Your task to perform on an android device: install app "WhatsApp Messenger" Image 0: 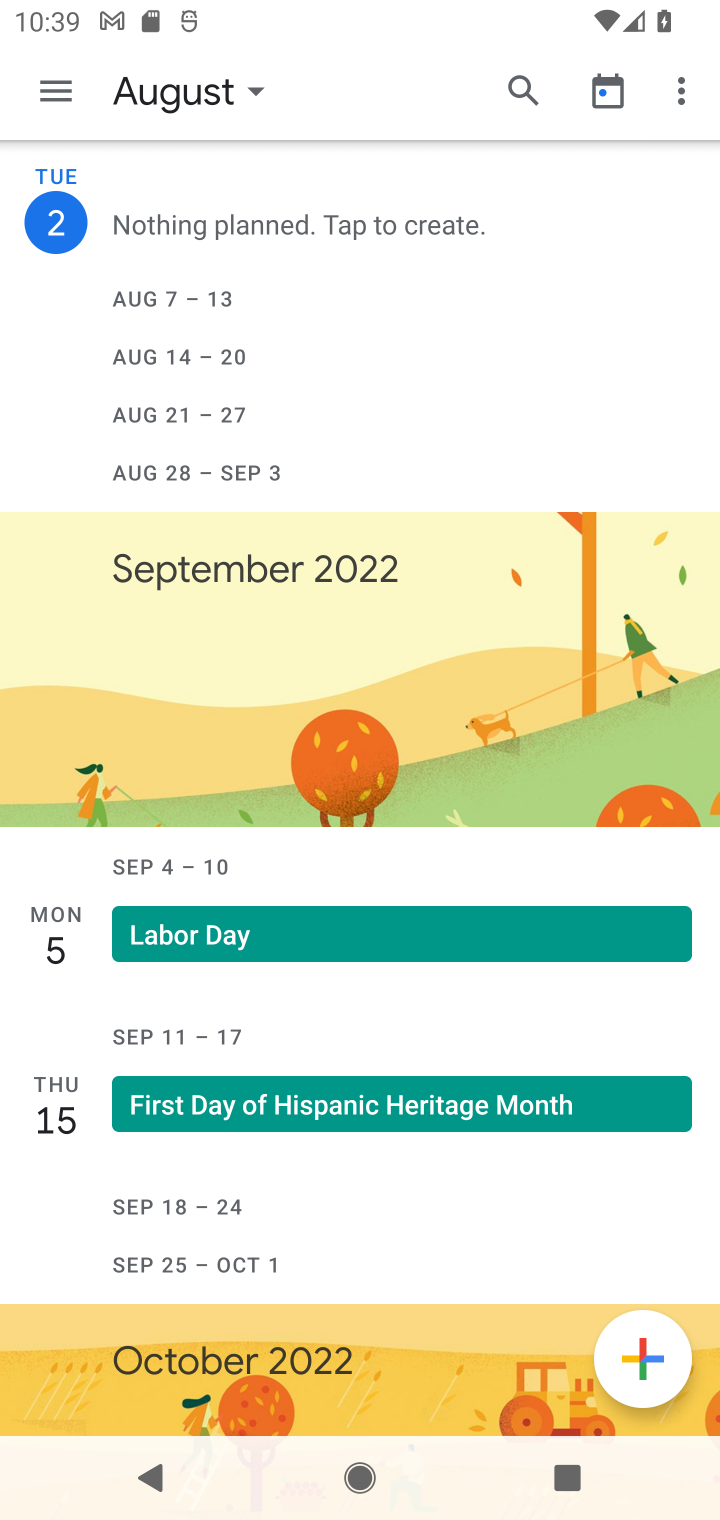
Step 0: press home button
Your task to perform on an android device: install app "WhatsApp Messenger" Image 1: 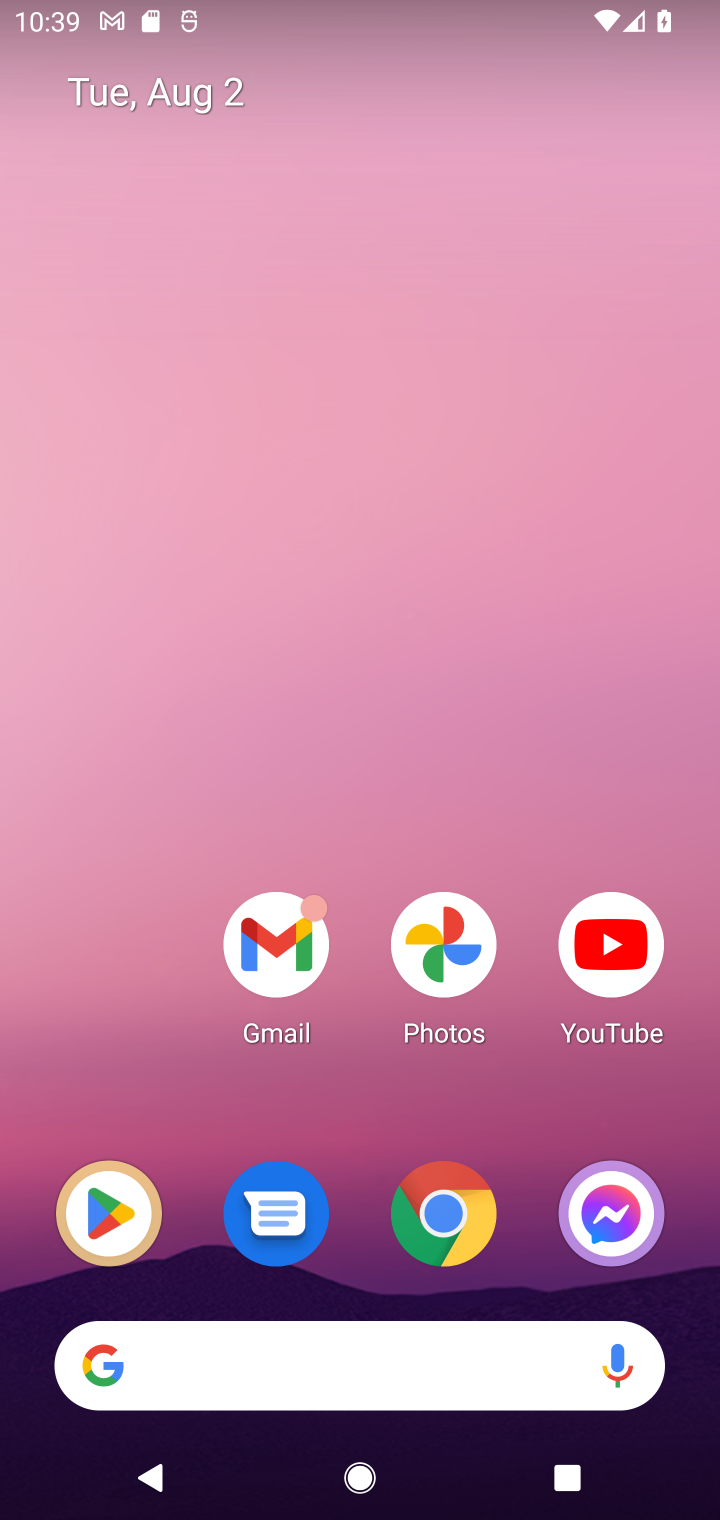
Step 1: click (116, 1200)
Your task to perform on an android device: install app "WhatsApp Messenger" Image 2: 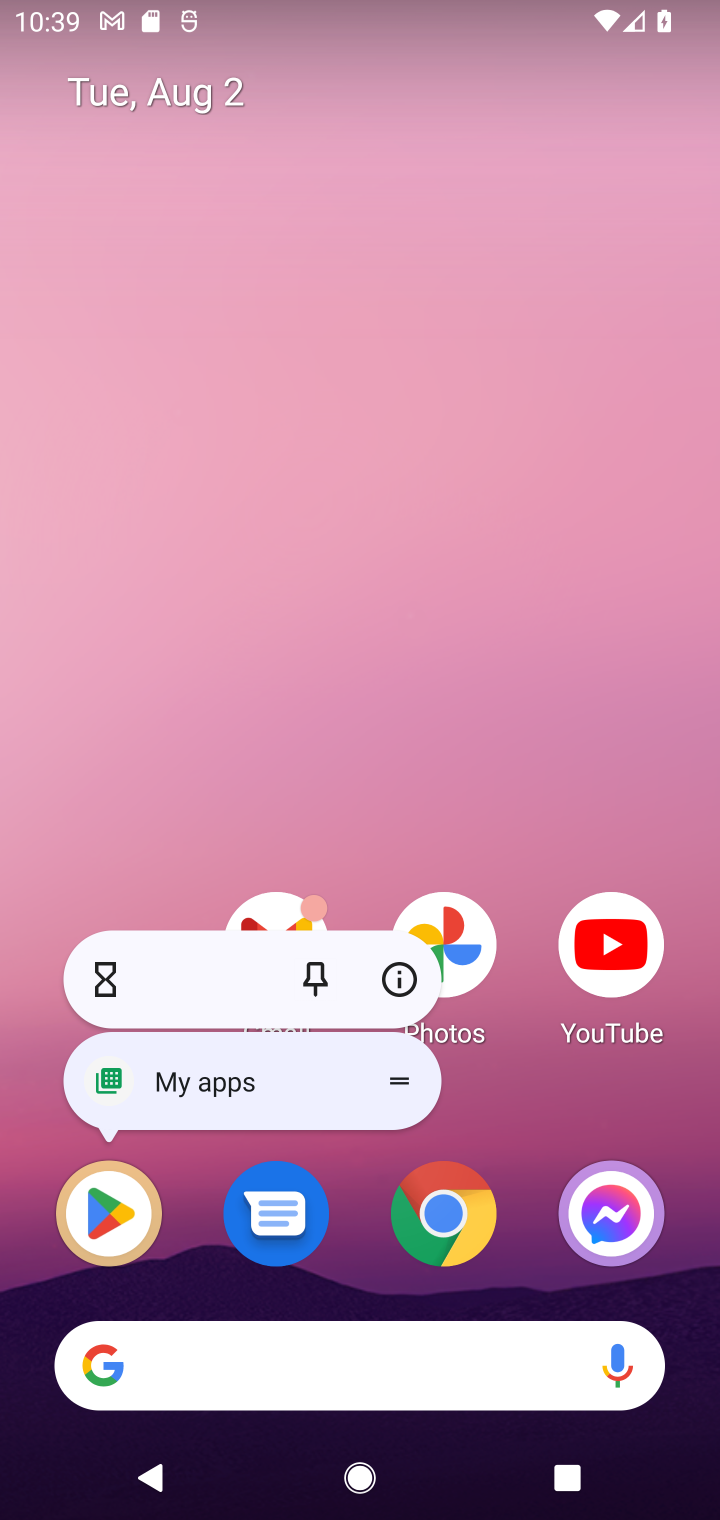
Step 2: click (116, 1224)
Your task to perform on an android device: install app "WhatsApp Messenger" Image 3: 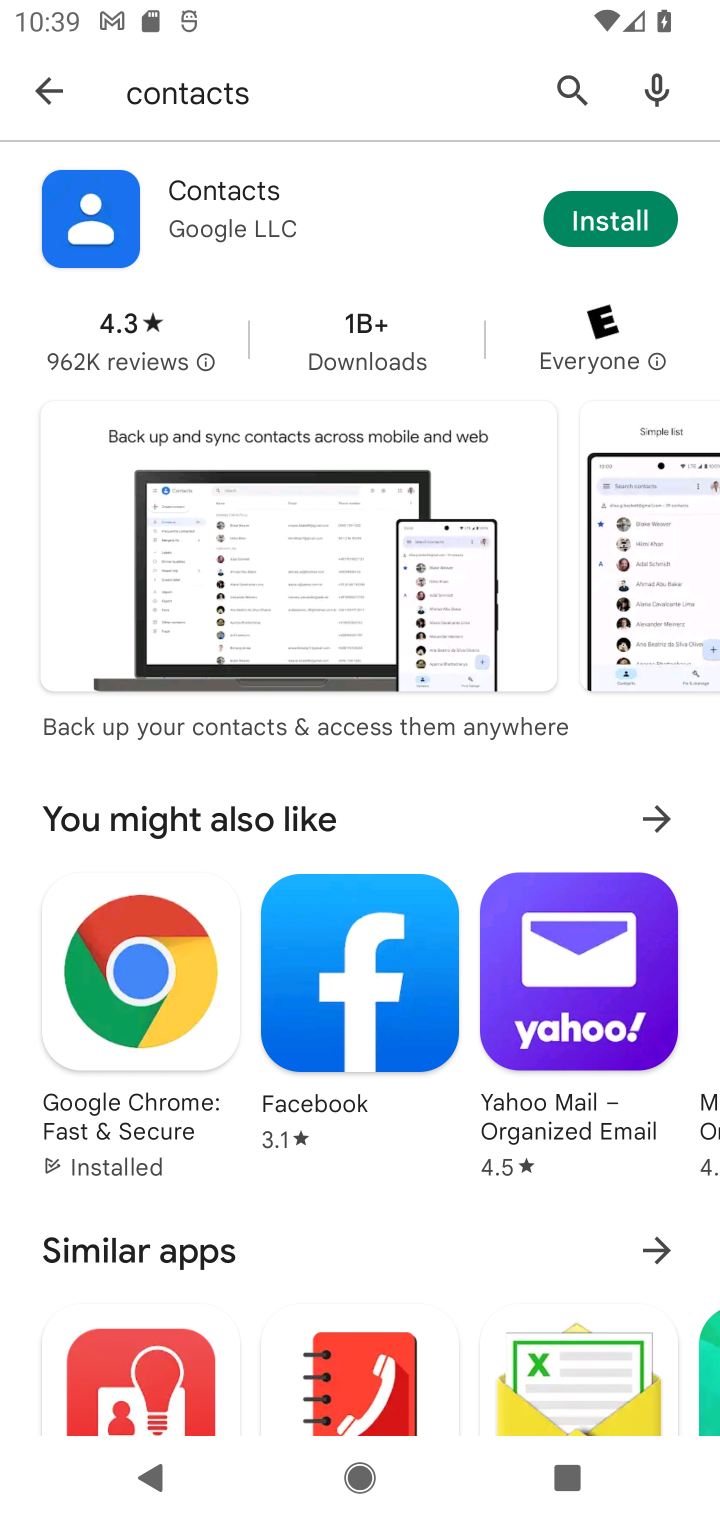
Step 3: click (52, 95)
Your task to perform on an android device: install app "WhatsApp Messenger" Image 4: 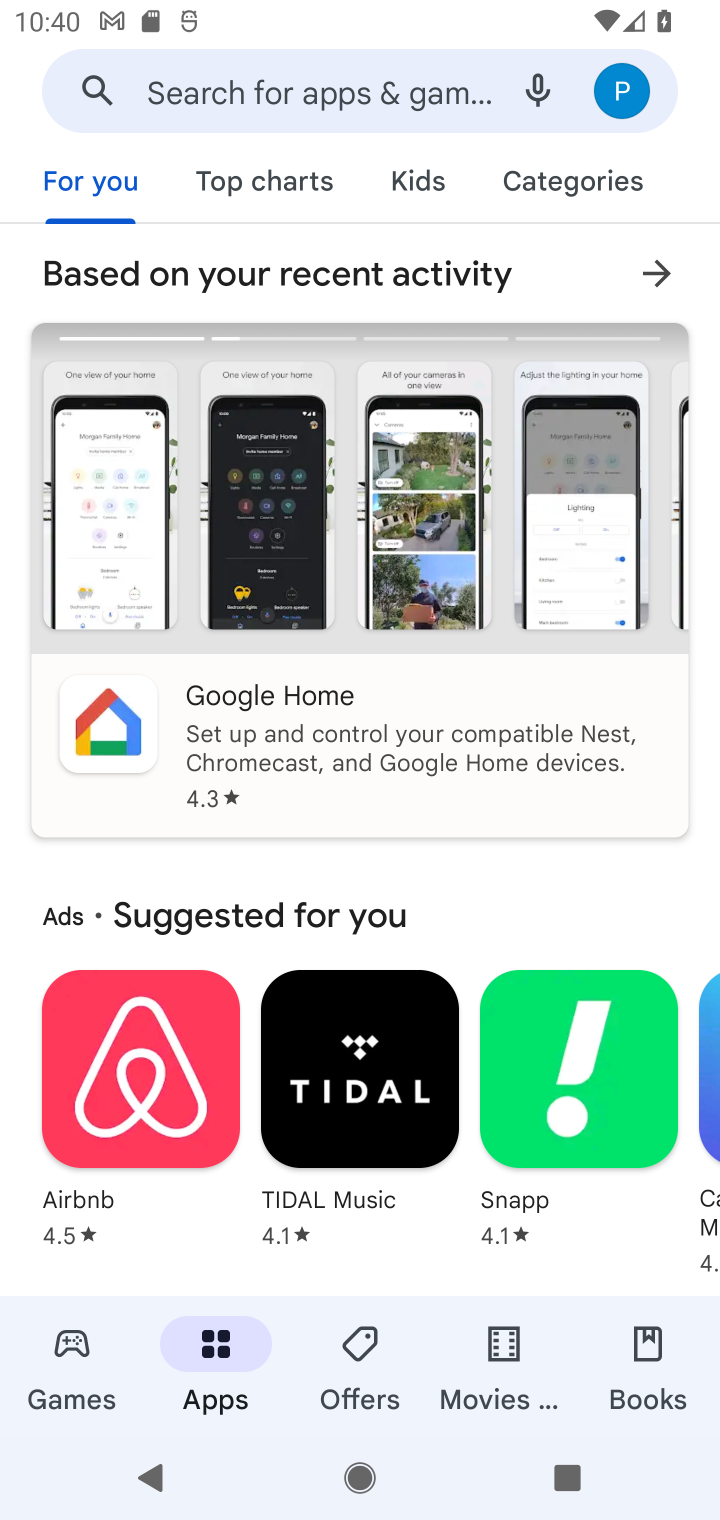
Step 4: click (310, 97)
Your task to perform on an android device: install app "WhatsApp Messenger" Image 5: 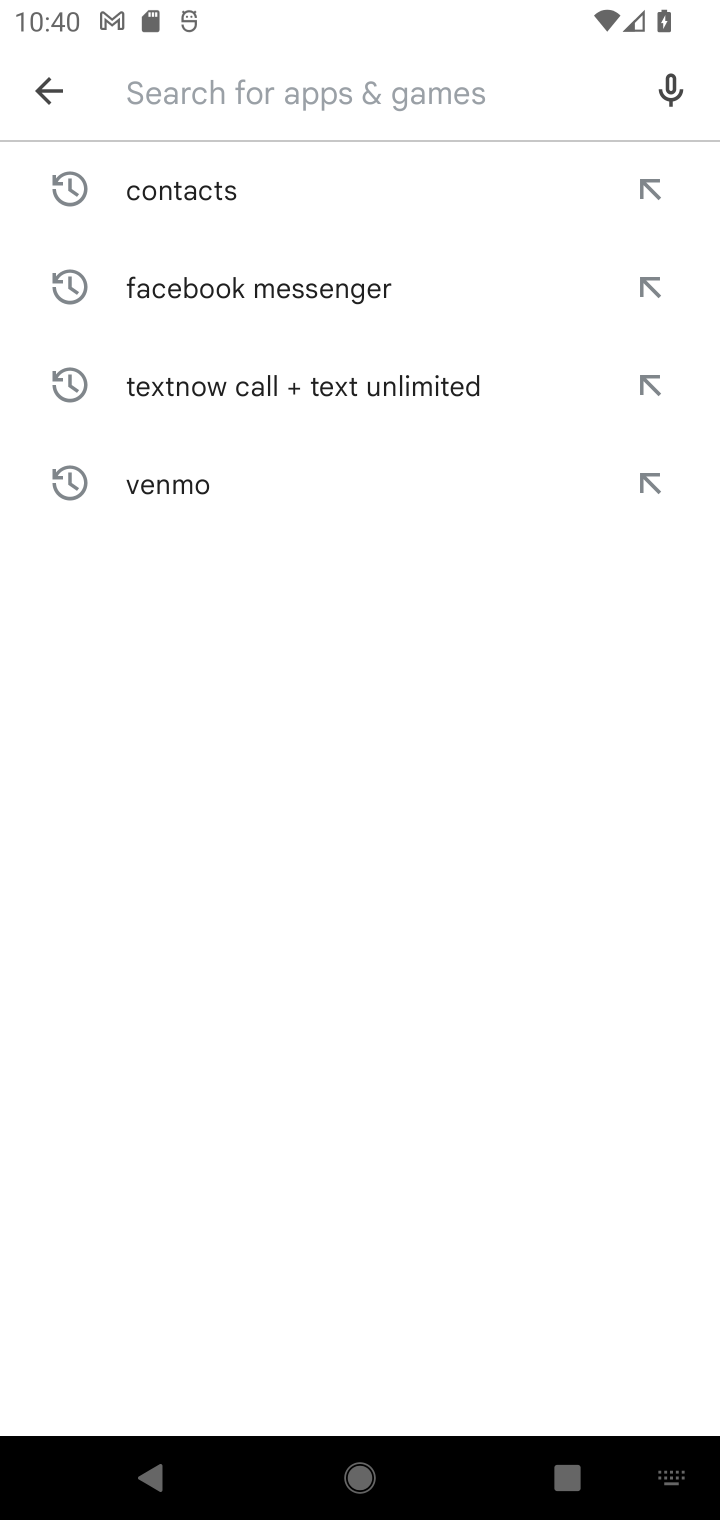
Step 5: type "WhatsApp Messenger"
Your task to perform on an android device: install app "WhatsApp Messenger" Image 6: 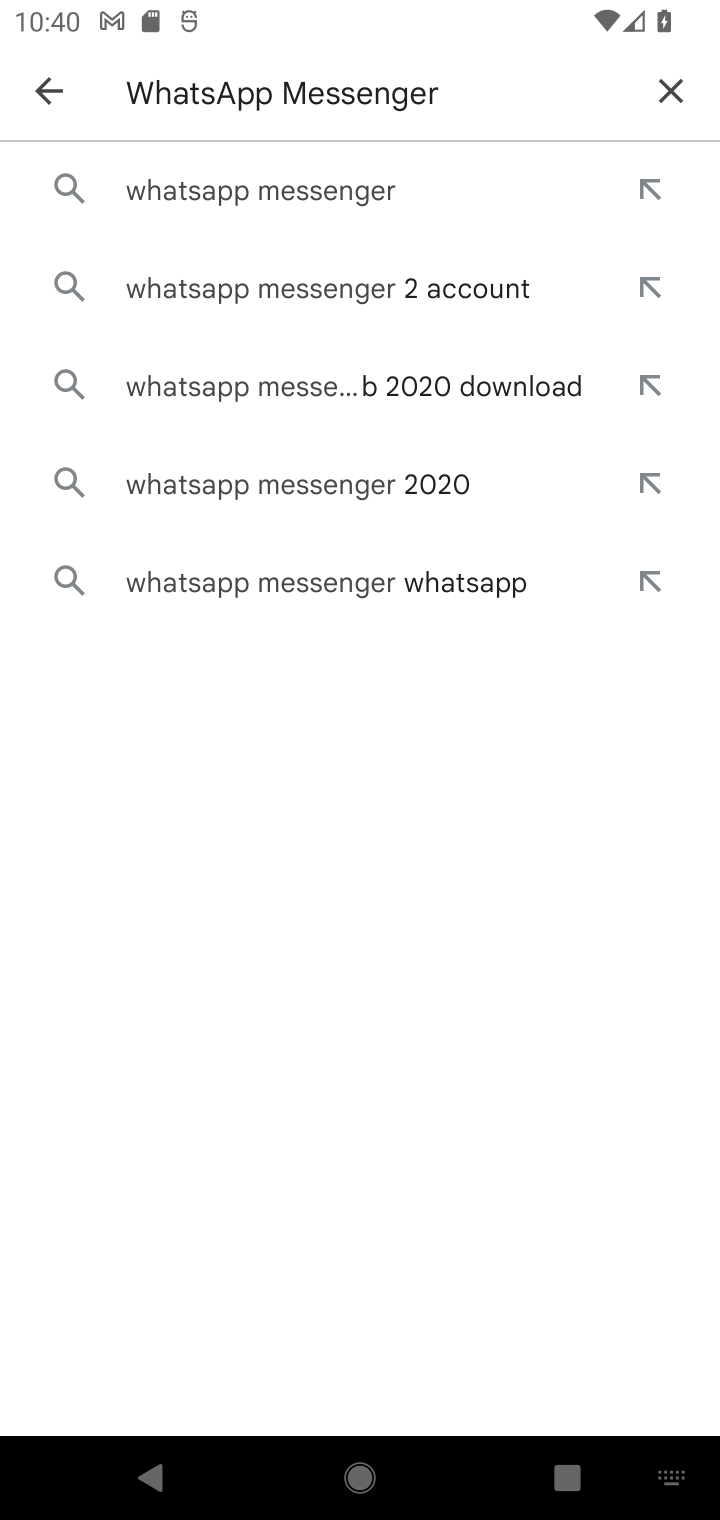
Step 6: click (251, 197)
Your task to perform on an android device: install app "WhatsApp Messenger" Image 7: 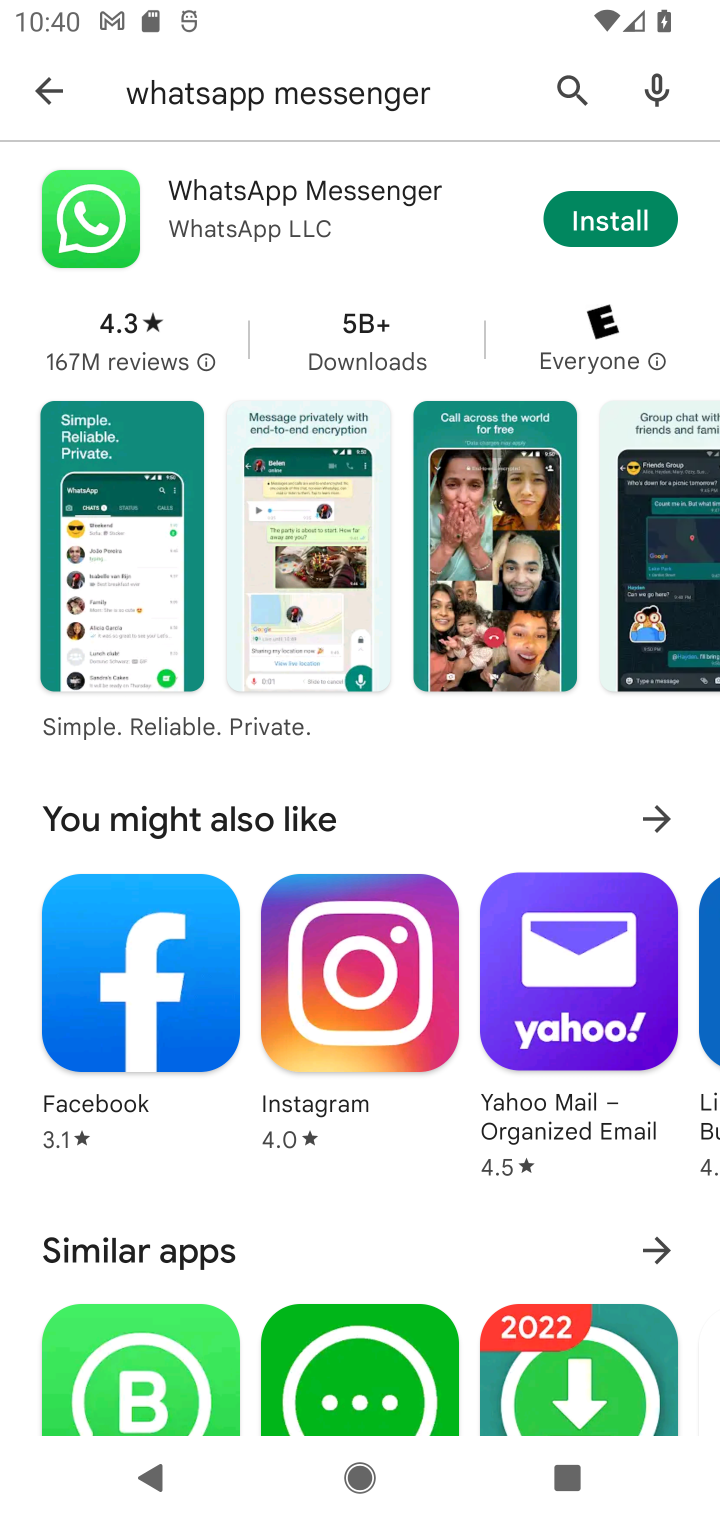
Step 7: click (636, 200)
Your task to perform on an android device: install app "WhatsApp Messenger" Image 8: 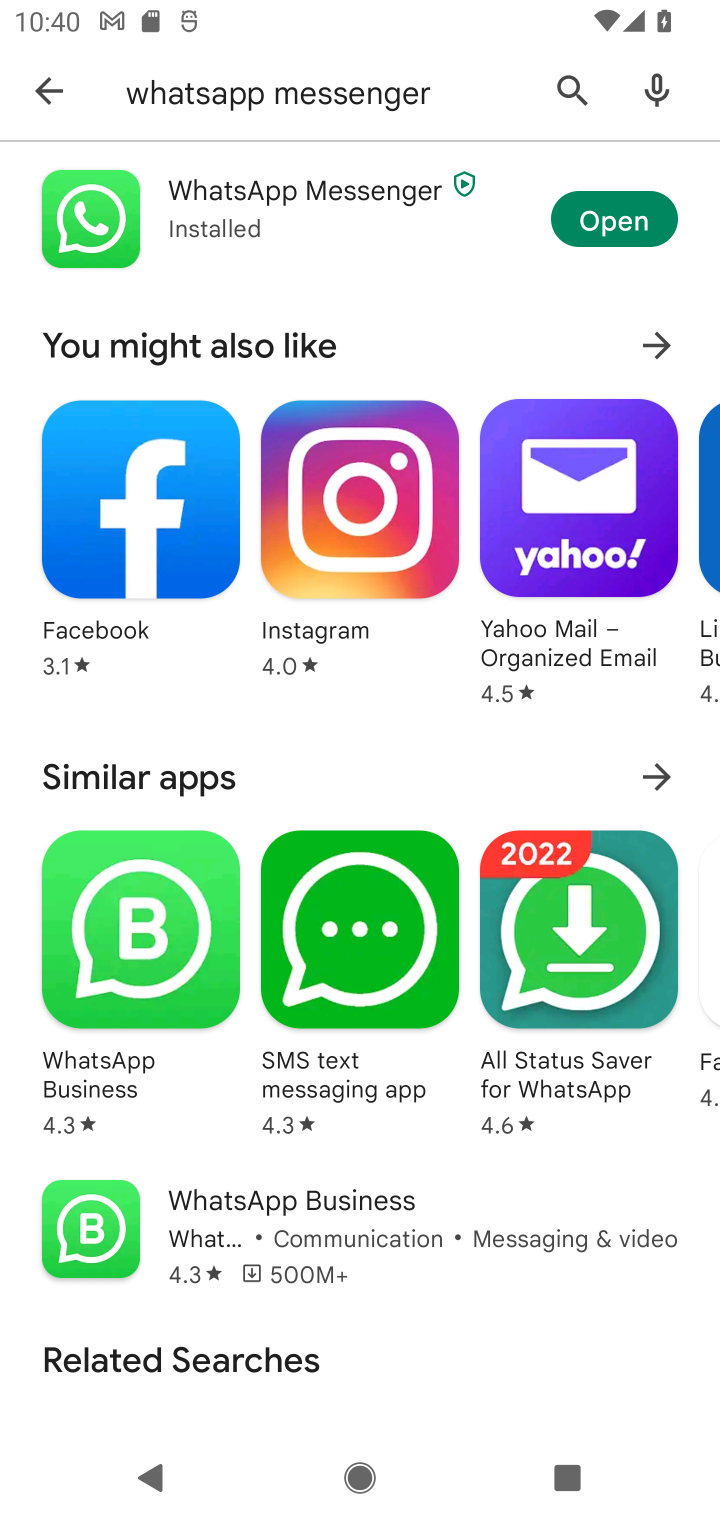
Step 8: task complete